Your task to perform on an android device: Go to network settings Image 0: 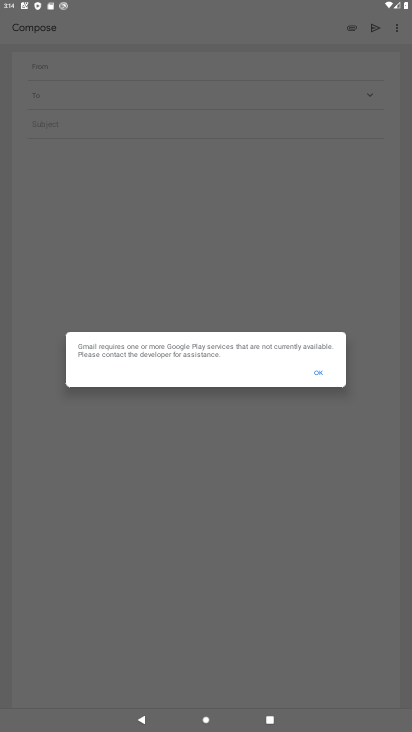
Step 0: press home button
Your task to perform on an android device: Go to network settings Image 1: 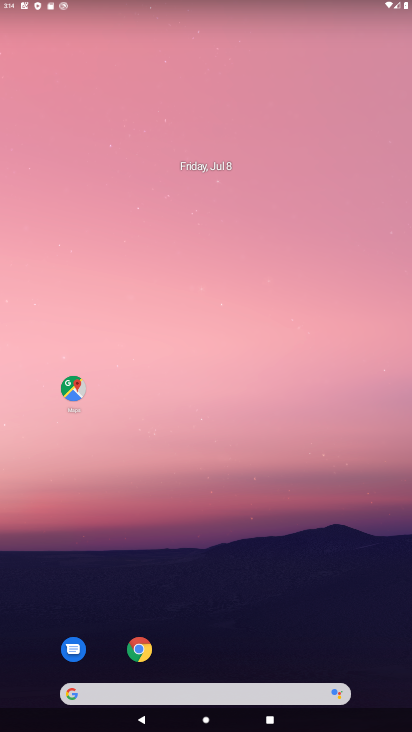
Step 1: drag from (232, 608) to (146, 161)
Your task to perform on an android device: Go to network settings Image 2: 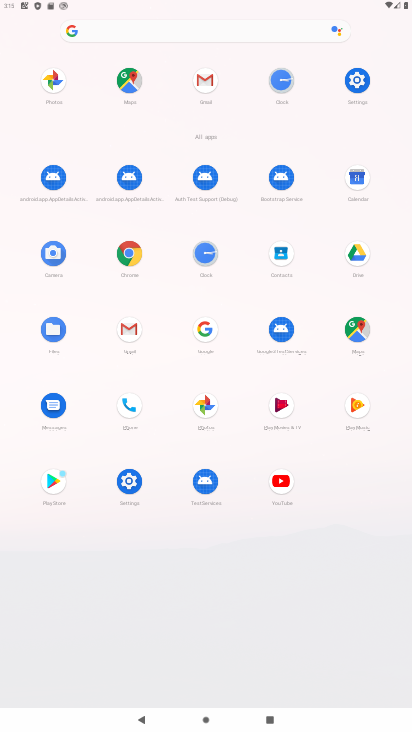
Step 2: click (361, 77)
Your task to perform on an android device: Go to network settings Image 3: 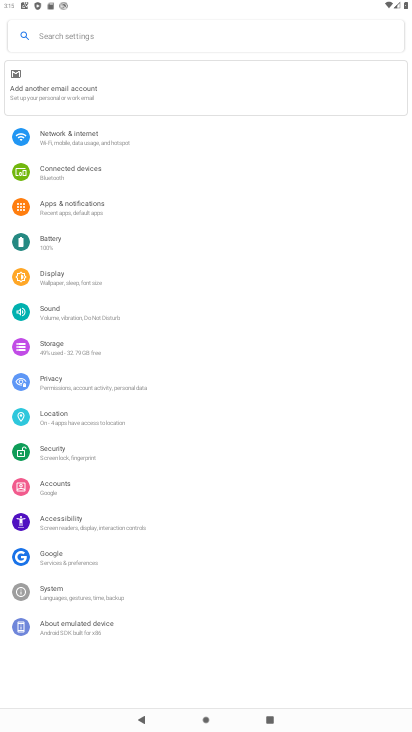
Step 3: click (95, 142)
Your task to perform on an android device: Go to network settings Image 4: 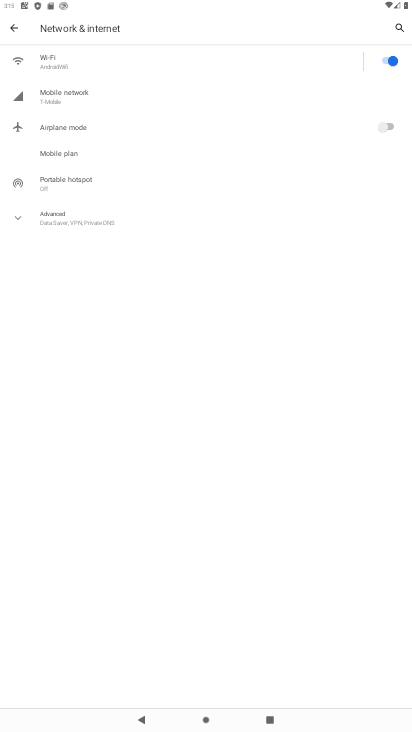
Step 4: click (65, 102)
Your task to perform on an android device: Go to network settings Image 5: 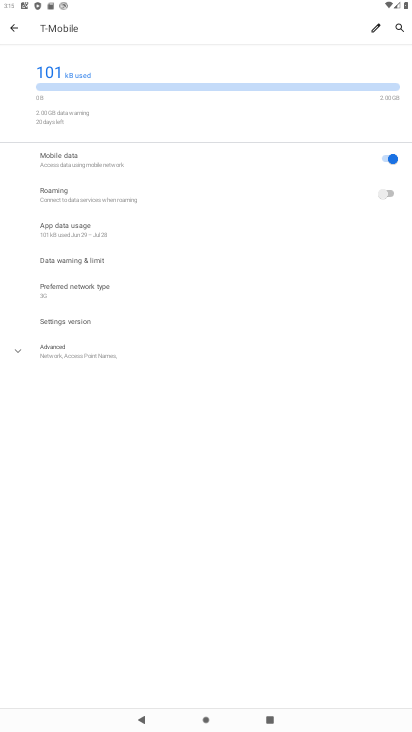
Step 5: click (85, 354)
Your task to perform on an android device: Go to network settings Image 6: 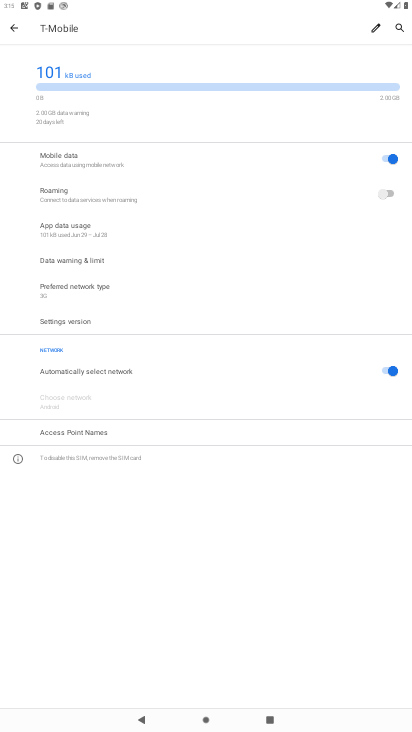
Step 6: task complete